Your task to perform on an android device: What's the weather? Image 0: 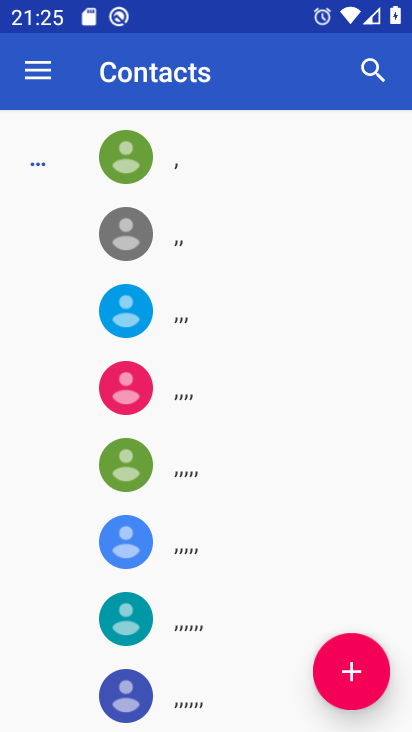
Step 0: press home button
Your task to perform on an android device: What's the weather? Image 1: 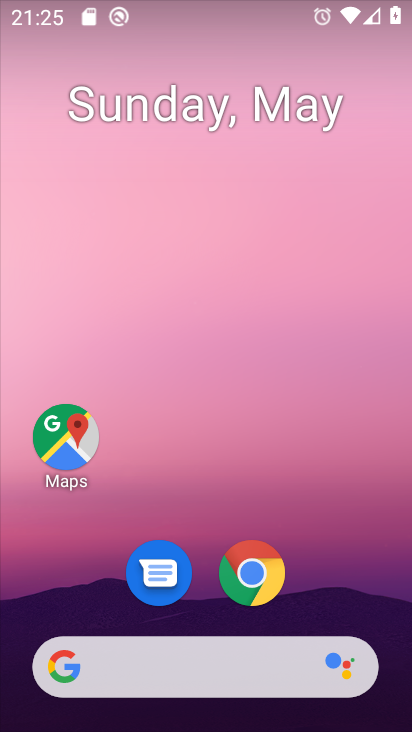
Step 1: click (249, 657)
Your task to perform on an android device: What's the weather? Image 2: 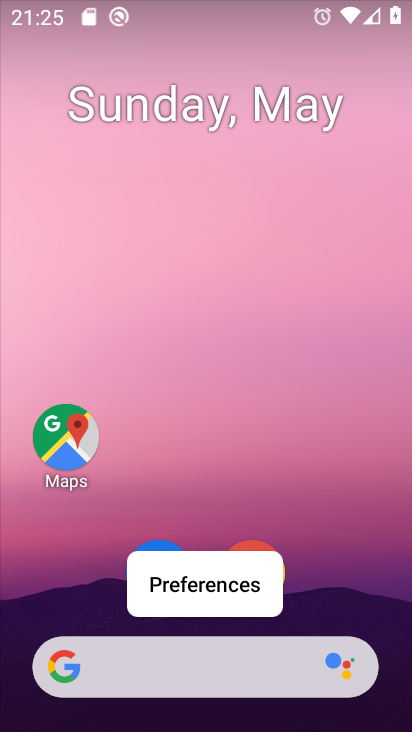
Step 2: click (202, 671)
Your task to perform on an android device: What's the weather? Image 3: 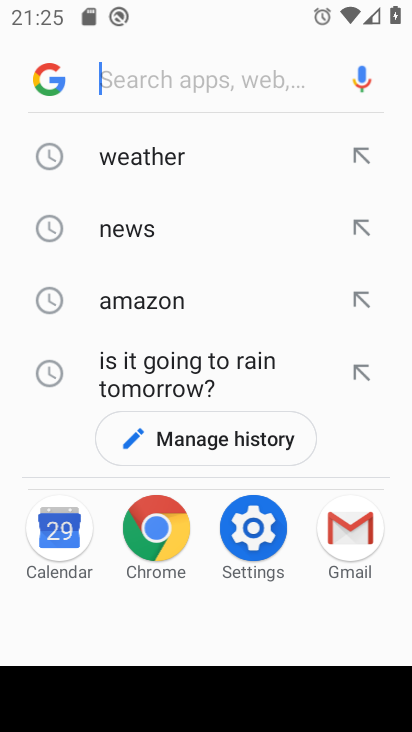
Step 3: click (160, 162)
Your task to perform on an android device: What's the weather? Image 4: 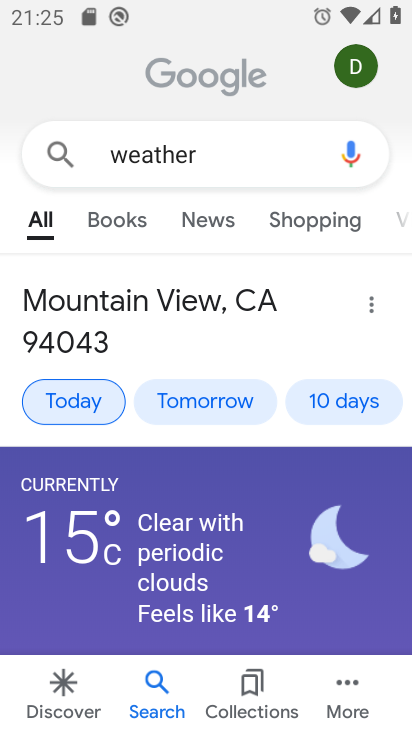
Step 4: click (105, 391)
Your task to perform on an android device: What's the weather? Image 5: 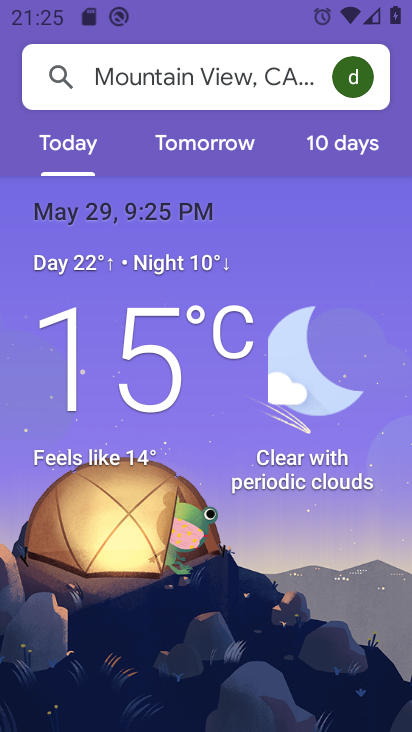
Step 5: task complete